Your task to perform on an android device: Open wifi settings Image 0: 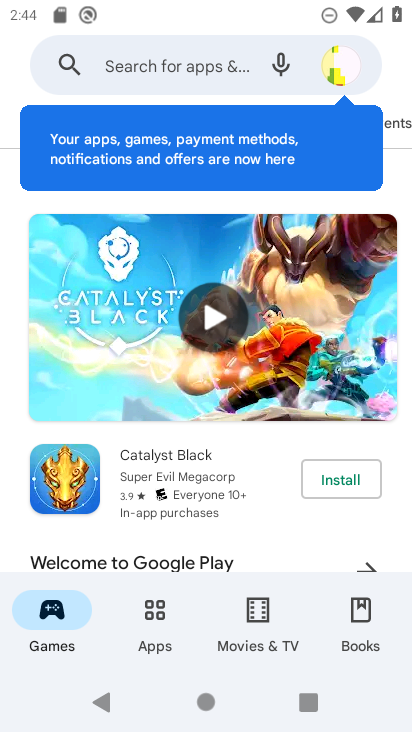
Step 0: press back button
Your task to perform on an android device: Open wifi settings Image 1: 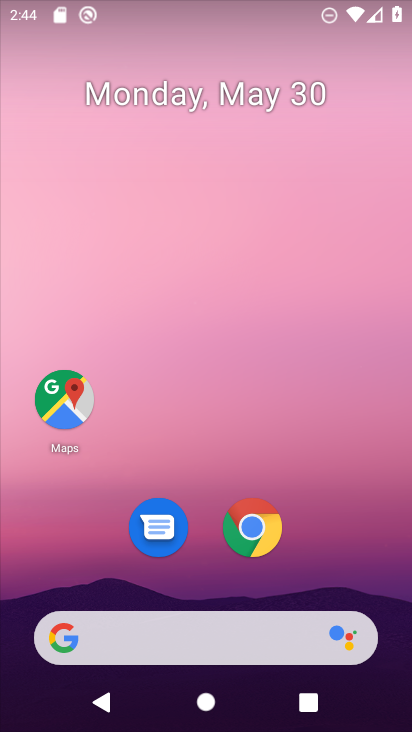
Step 1: drag from (268, 564) to (186, 113)
Your task to perform on an android device: Open wifi settings Image 2: 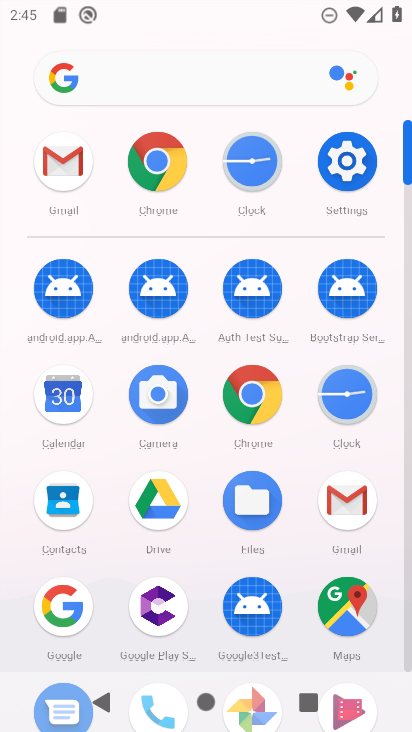
Step 2: click (341, 155)
Your task to perform on an android device: Open wifi settings Image 3: 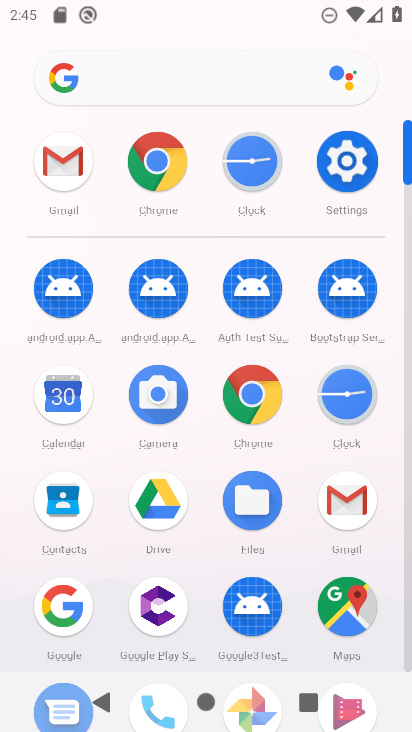
Step 3: click (341, 155)
Your task to perform on an android device: Open wifi settings Image 4: 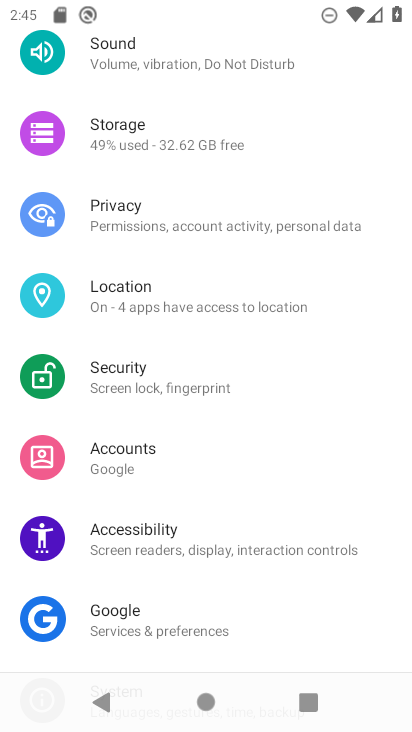
Step 4: drag from (177, 233) to (177, 397)
Your task to perform on an android device: Open wifi settings Image 5: 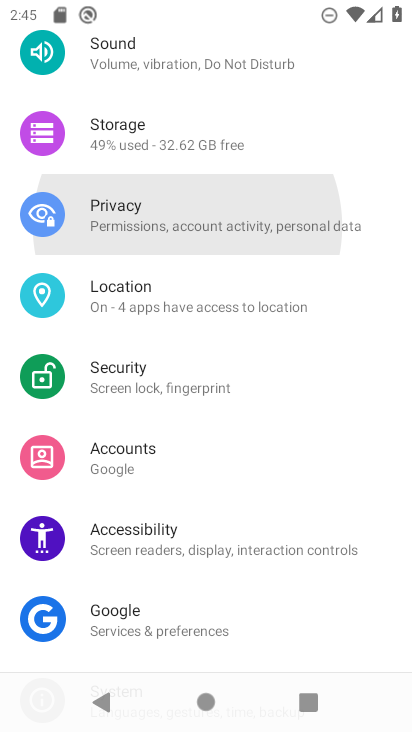
Step 5: click (191, 419)
Your task to perform on an android device: Open wifi settings Image 6: 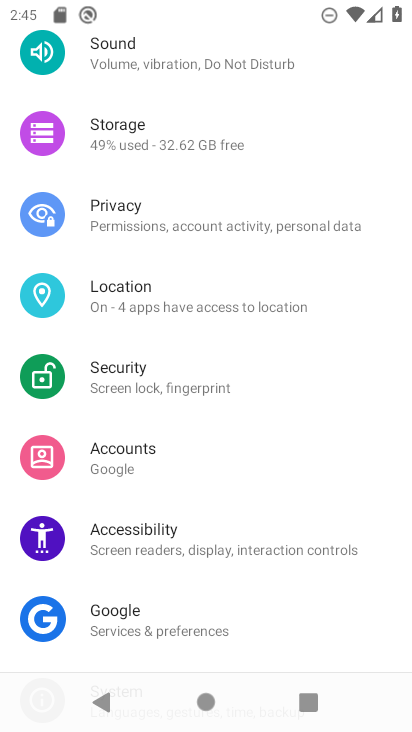
Step 6: drag from (136, 166) to (166, 445)
Your task to perform on an android device: Open wifi settings Image 7: 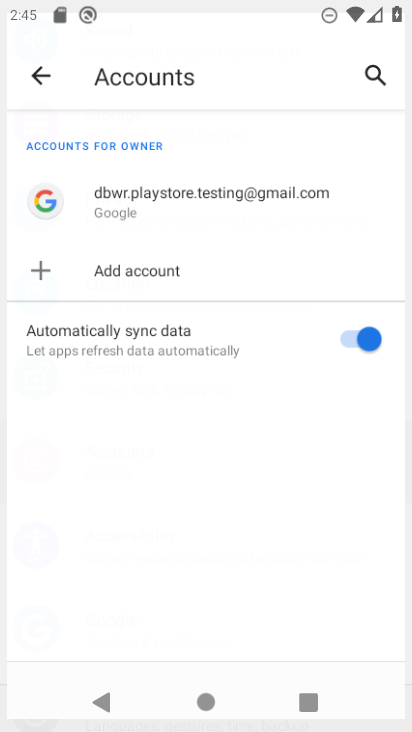
Step 7: drag from (135, 210) to (176, 439)
Your task to perform on an android device: Open wifi settings Image 8: 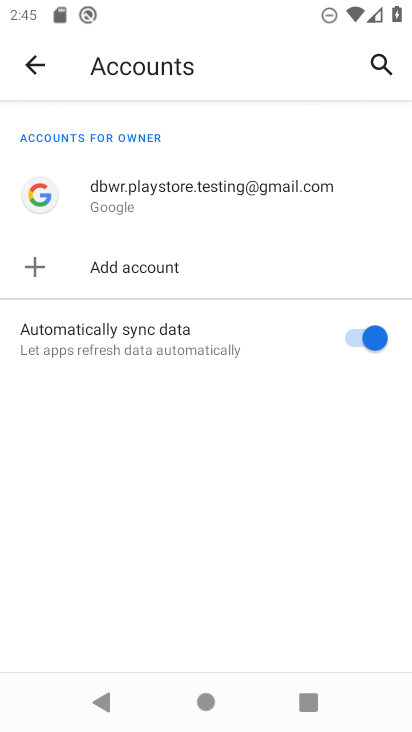
Step 8: drag from (190, 311) to (166, 469)
Your task to perform on an android device: Open wifi settings Image 9: 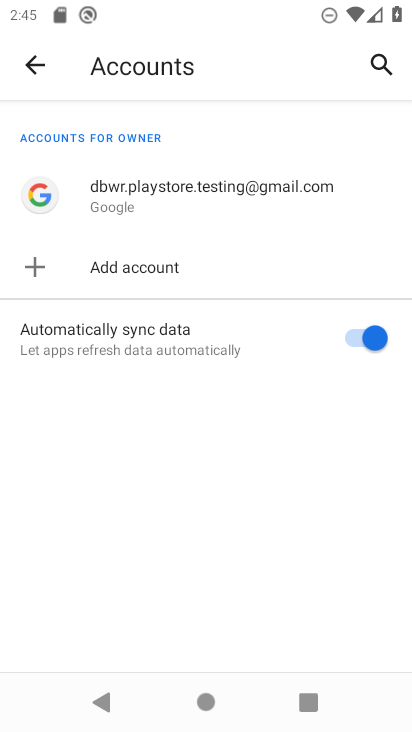
Step 9: click (37, 62)
Your task to perform on an android device: Open wifi settings Image 10: 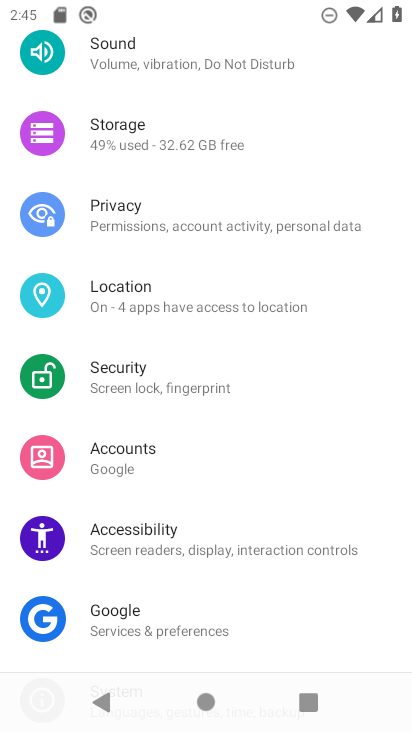
Step 10: drag from (136, 125) to (162, 498)
Your task to perform on an android device: Open wifi settings Image 11: 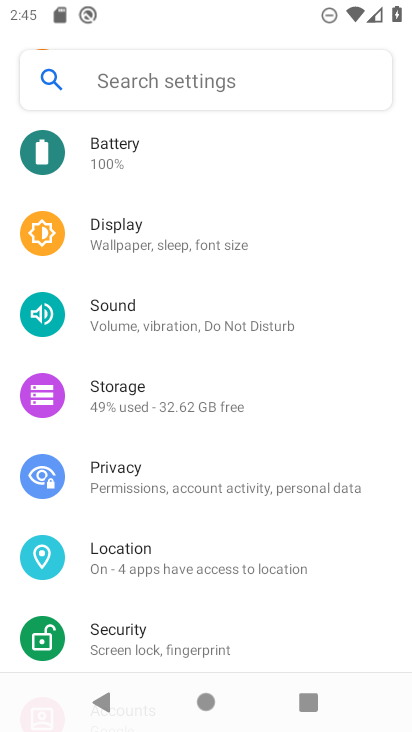
Step 11: drag from (144, 130) to (156, 597)
Your task to perform on an android device: Open wifi settings Image 12: 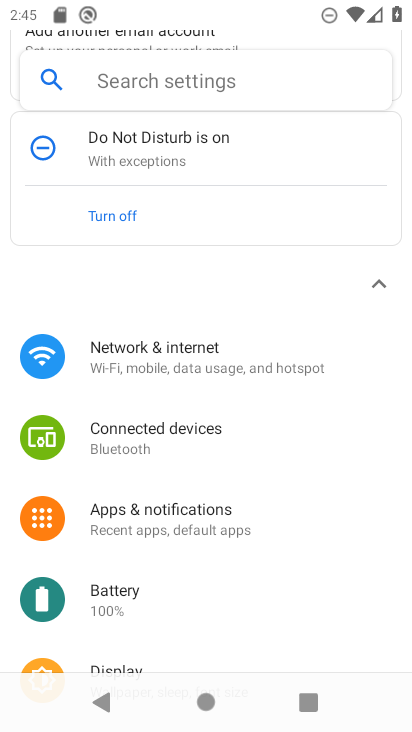
Step 12: drag from (118, 167) to (103, 478)
Your task to perform on an android device: Open wifi settings Image 13: 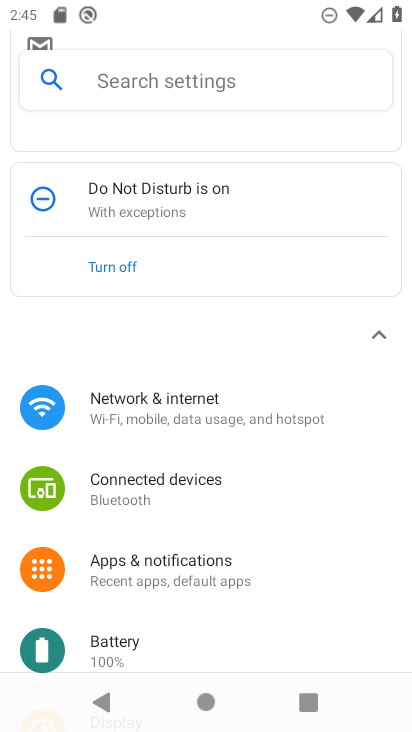
Step 13: click (161, 401)
Your task to perform on an android device: Open wifi settings Image 14: 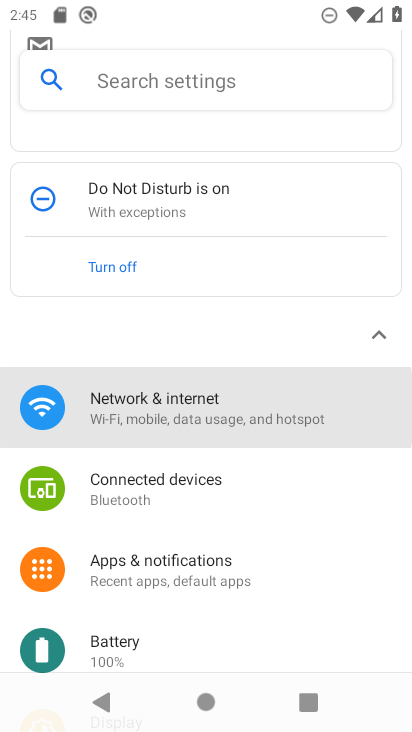
Step 14: click (166, 402)
Your task to perform on an android device: Open wifi settings Image 15: 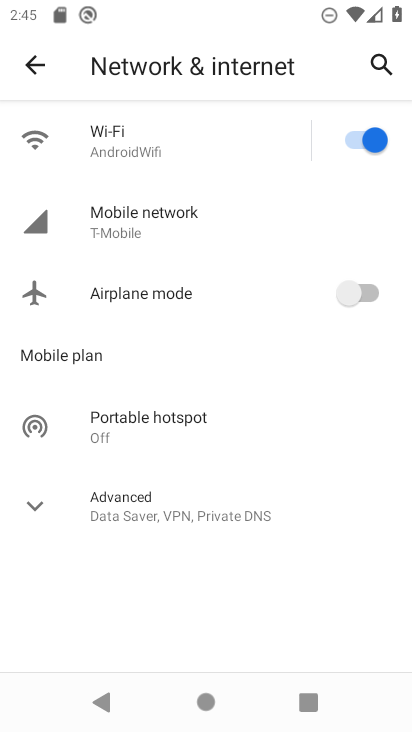
Step 15: task complete